Your task to perform on an android device: Search for vegetarian restaurants on Maps Image 0: 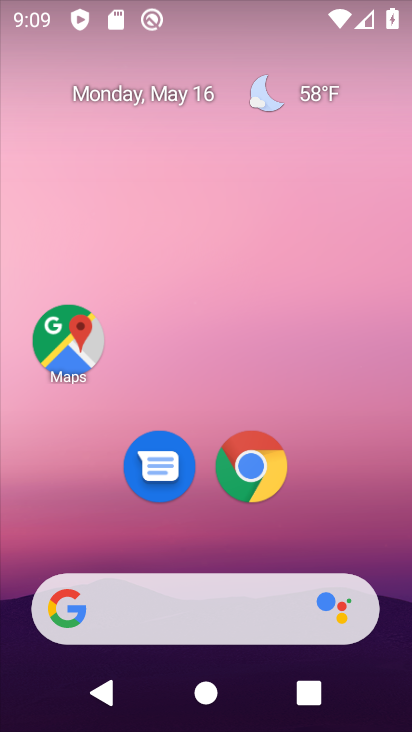
Step 0: drag from (331, 532) to (324, 61)
Your task to perform on an android device: Search for vegetarian restaurants on Maps Image 1: 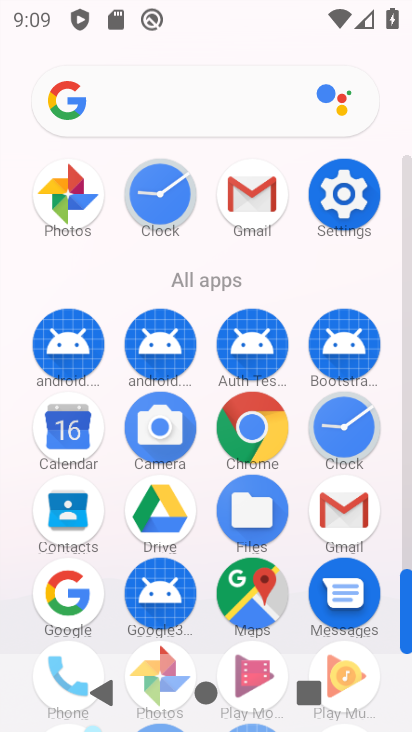
Step 1: click (247, 584)
Your task to perform on an android device: Search for vegetarian restaurants on Maps Image 2: 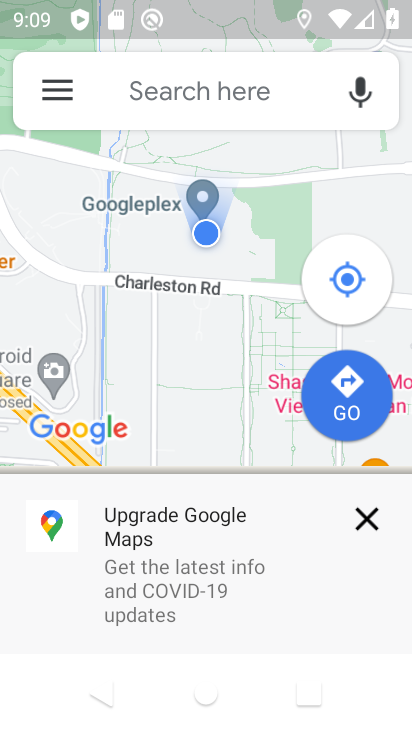
Step 2: click (140, 99)
Your task to perform on an android device: Search for vegetarian restaurants on Maps Image 3: 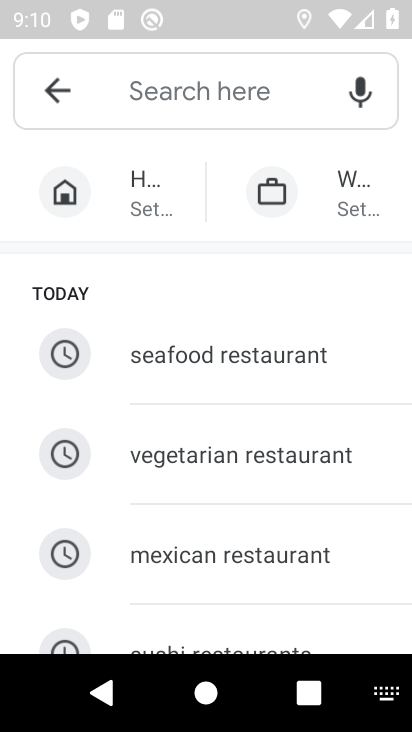
Step 3: type "vegetarian restaurant"
Your task to perform on an android device: Search for vegetarian restaurants on Maps Image 4: 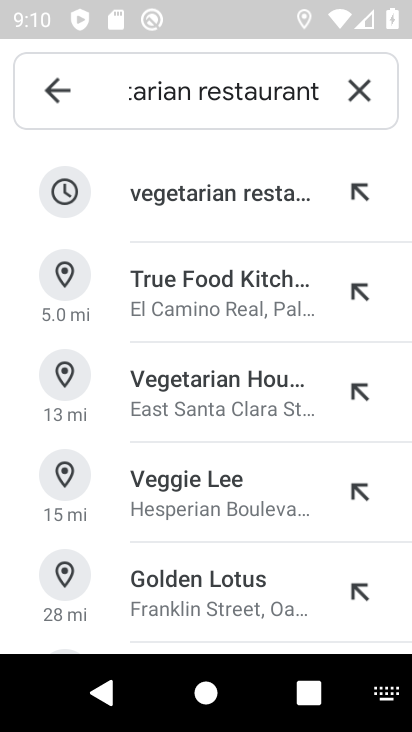
Step 4: click (253, 183)
Your task to perform on an android device: Search for vegetarian restaurants on Maps Image 5: 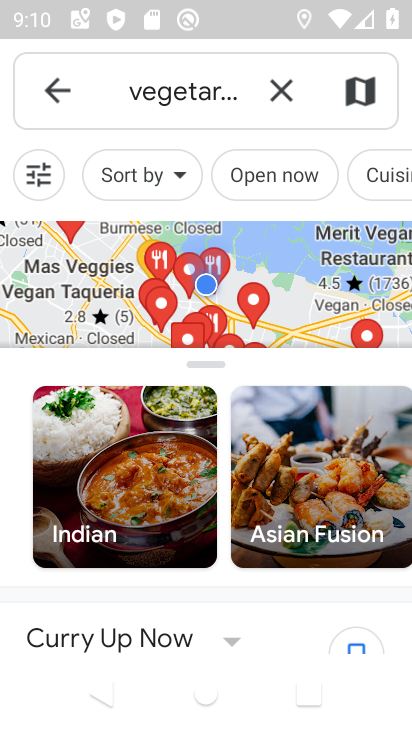
Step 5: task complete